Your task to perform on an android device: Open Google Chrome Image 0: 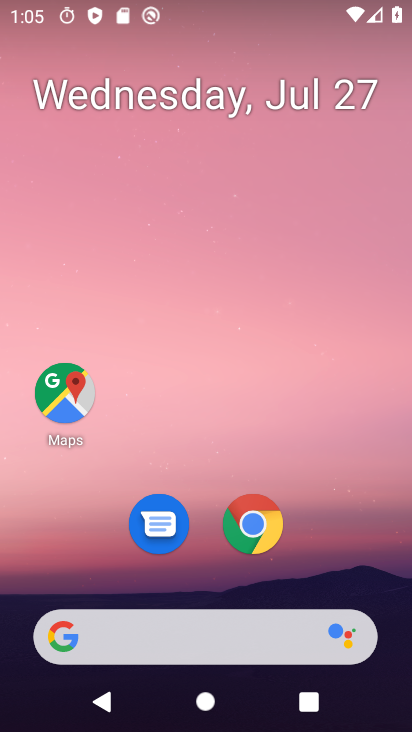
Step 0: click (252, 524)
Your task to perform on an android device: Open Google Chrome Image 1: 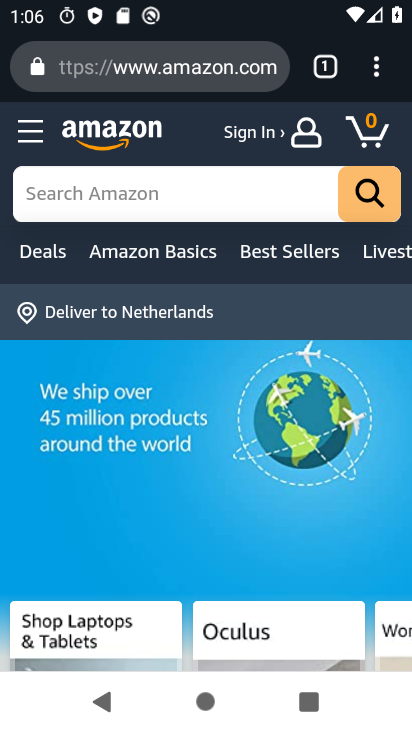
Step 1: task complete